Your task to perform on an android device: check out phone information Image 0: 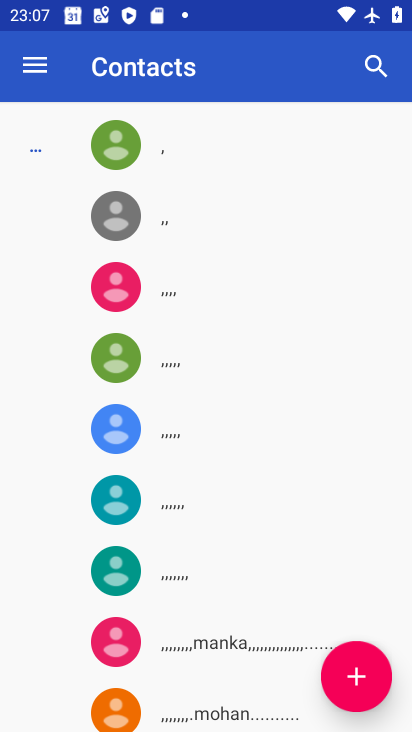
Step 0: press home button
Your task to perform on an android device: check out phone information Image 1: 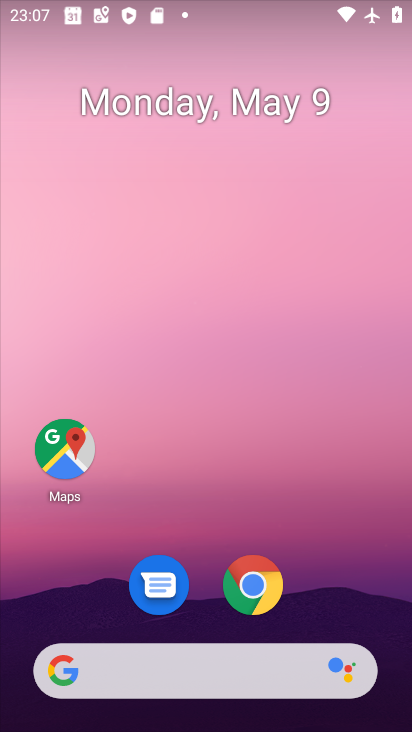
Step 1: drag from (219, 484) to (235, 34)
Your task to perform on an android device: check out phone information Image 2: 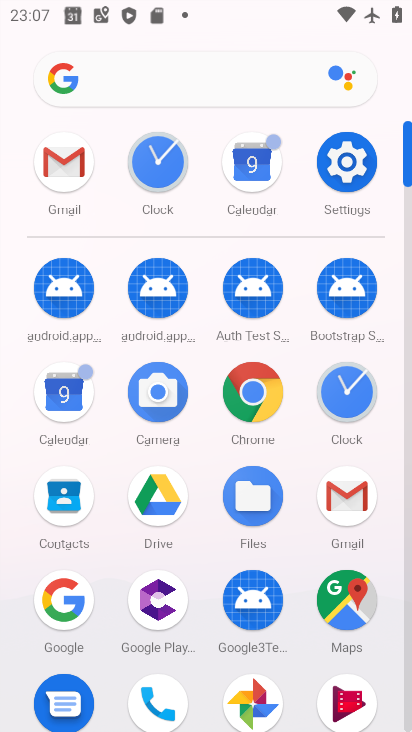
Step 2: click (150, 698)
Your task to perform on an android device: check out phone information Image 3: 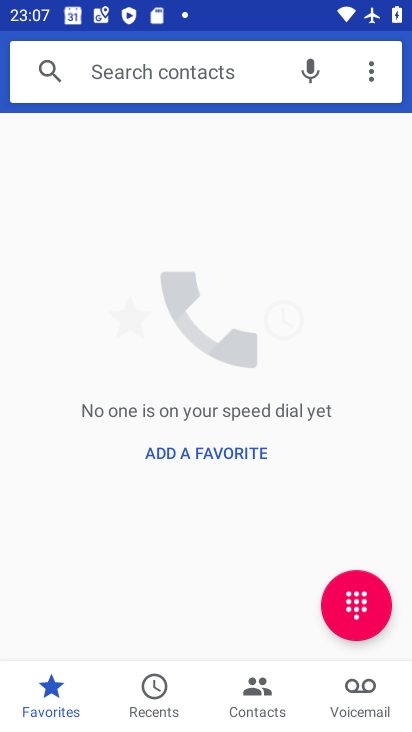
Step 3: click (367, 76)
Your task to perform on an android device: check out phone information Image 4: 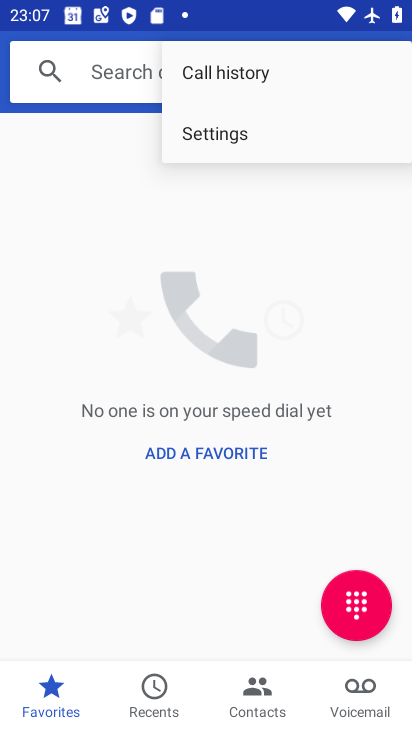
Step 4: click (257, 137)
Your task to perform on an android device: check out phone information Image 5: 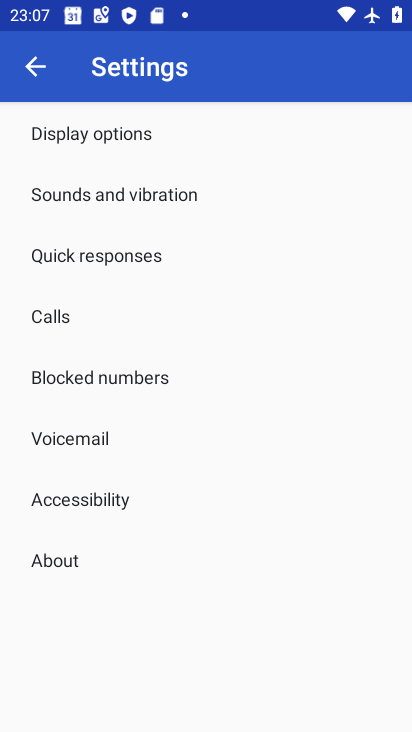
Step 5: click (49, 547)
Your task to perform on an android device: check out phone information Image 6: 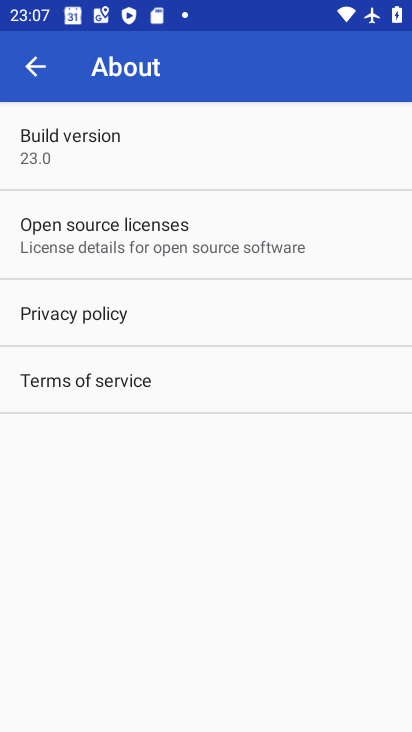
Step 6: task complete